Your task to perform on an android device: Show me popular videos on Youtube Image 0: 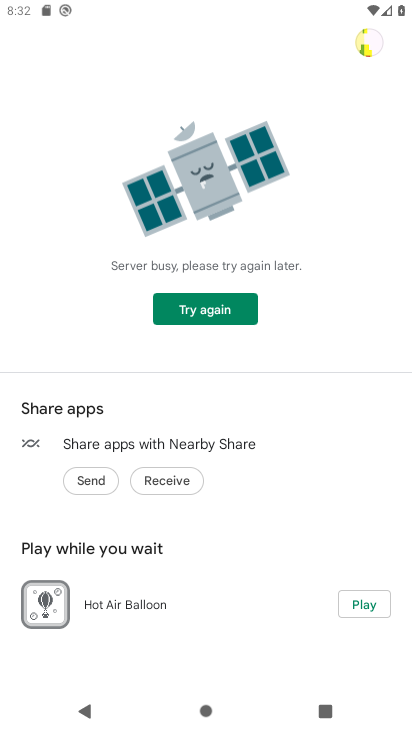
Step 0: press home button
Your task to perform on an android device: Show me popular videos on Youtube Image 1: 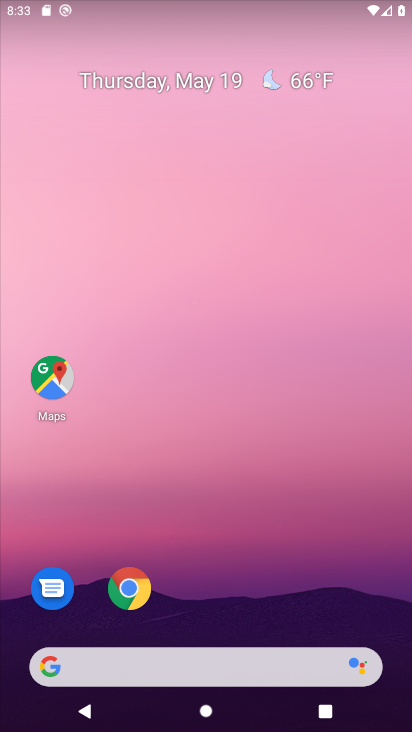
Step 1: drag from (319, 573) to (311, 270)
Your task to perform on an android device: Show me popular videos on Youtube Image 2: 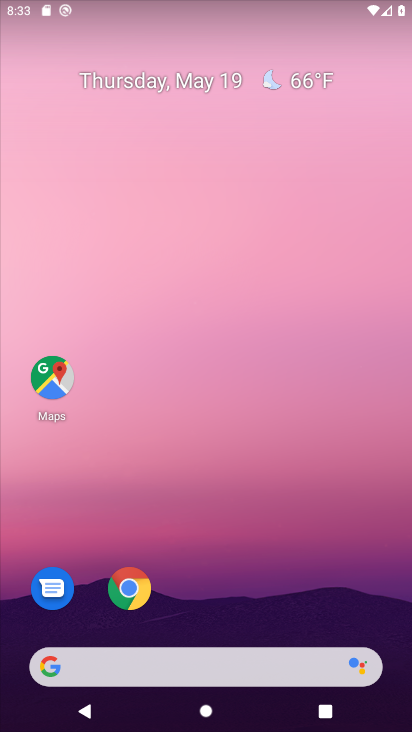
Step 2: drag from (354, 597) to (330, 183)
Your task to perform on an android device: Show me popular videos on Youtube Image 3: 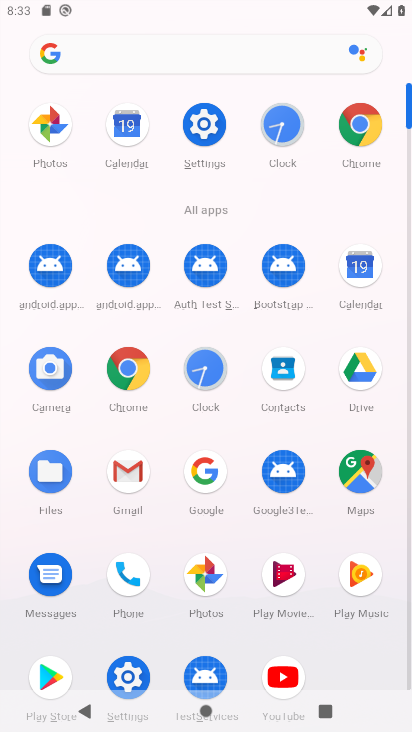
Step 3: drag from (377, 667) to (367, 485)
Your task to perform on an android device: Show me popular videos on Youtube Image 4: 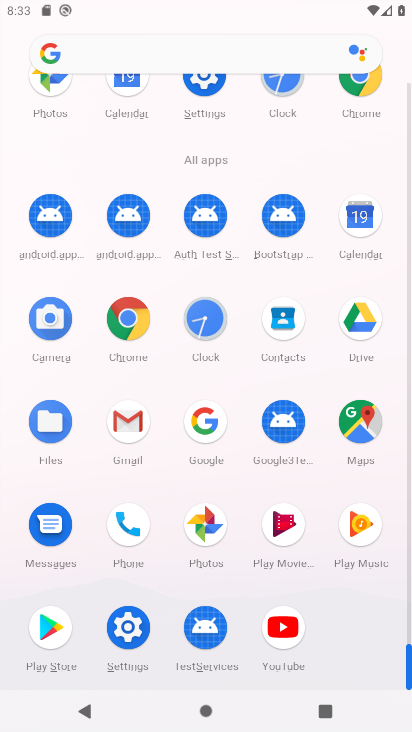
Step 4: click (292, 647)
Your task to perform on an android device: Show me popular videos on Youtube Image 5: 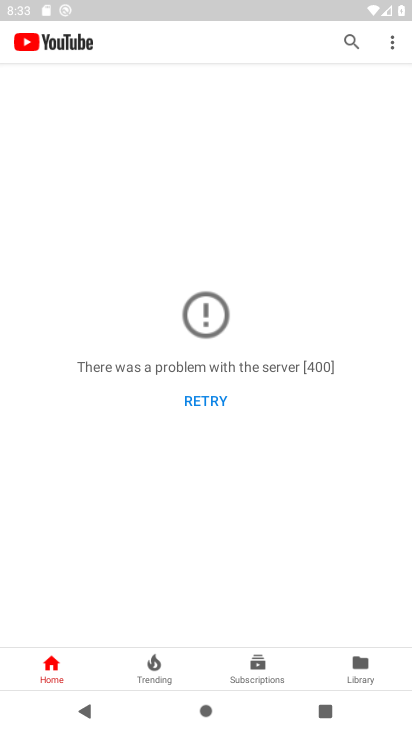
Step 5: click (363, 670)
Your task to perform on an android device: Show me popular videos on Youtube Image 6: 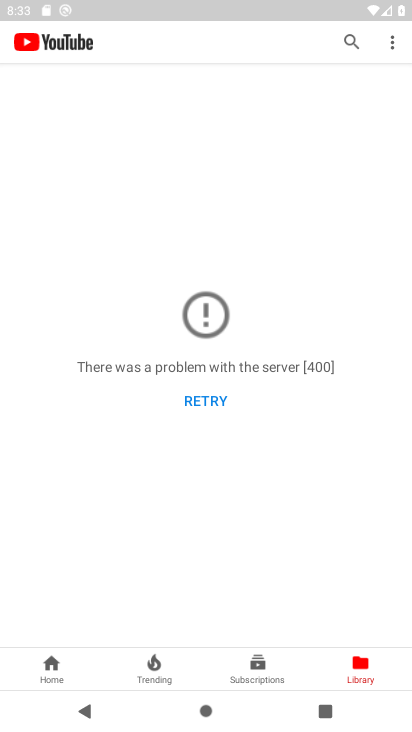
Step 6: click (32, 677)
Your task to perform on an android device: Show me popular videos on Youtube Image 7: 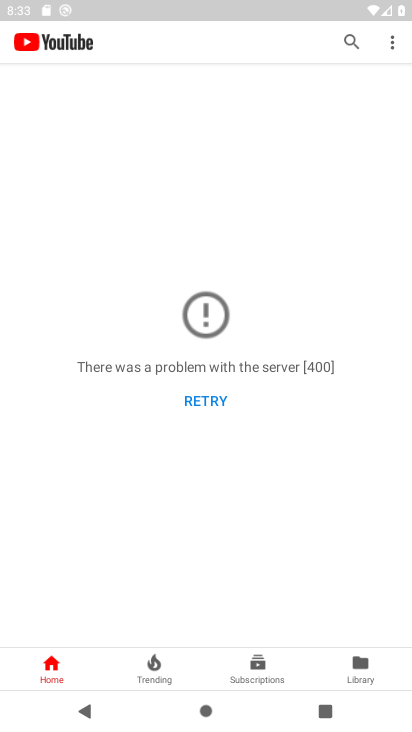
Step 7: task complete